Your task to perform on an android device: Search for Italian restaurants on Maps Image 0: 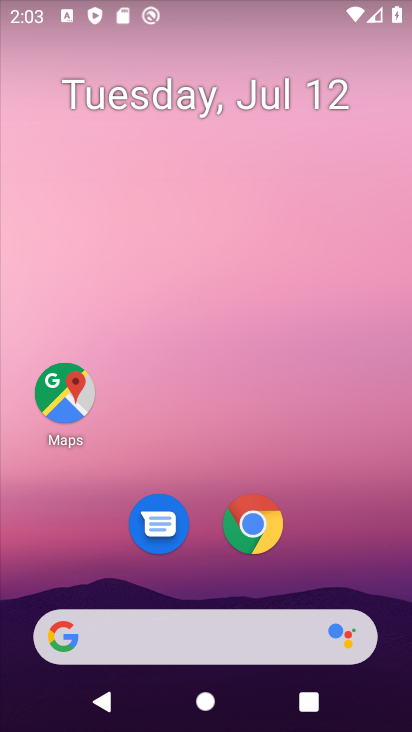
Step 0: click (69, 404)
Your task to perform on an android device: Search for Italian restaurants on Maps Image 1: 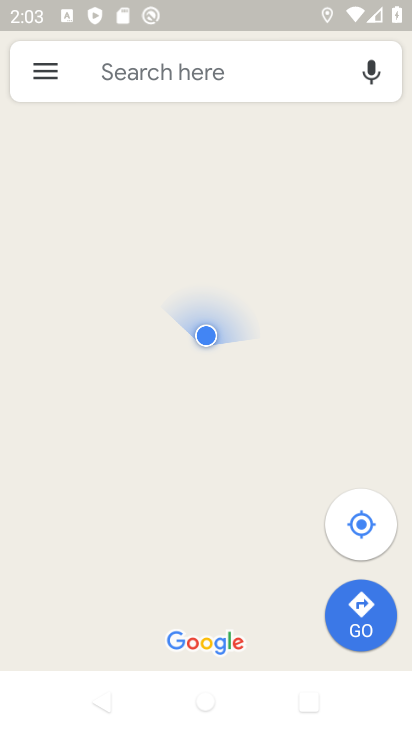
Step 1: click (178, 68)
Your task to perform on an android device: Search for Italian restaurants on Maps Image 2: 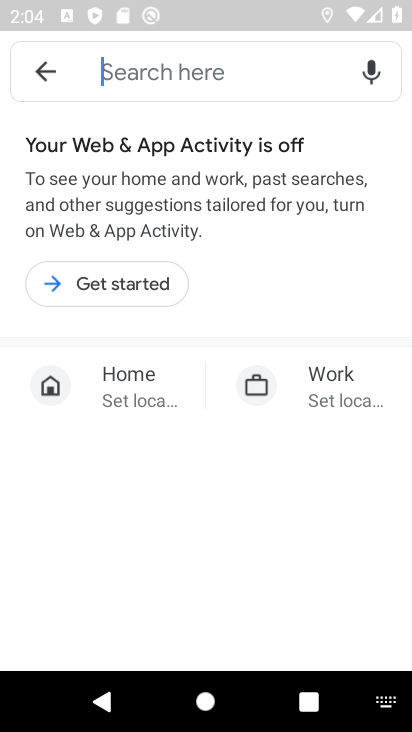
Step 2: type "italian restaurants"
Your task to perform on an android device: Search for Italian restaurants on Maps Image 3: 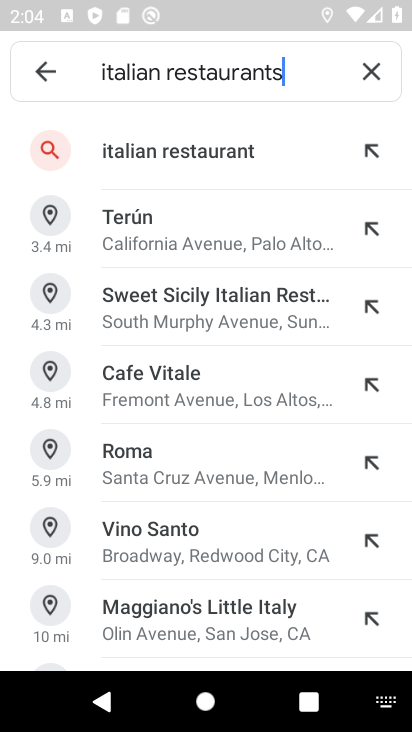
Step 3: click (220, 139)
Your task to perform on an android device: Search for Italian restaurants on Maps Image 4: 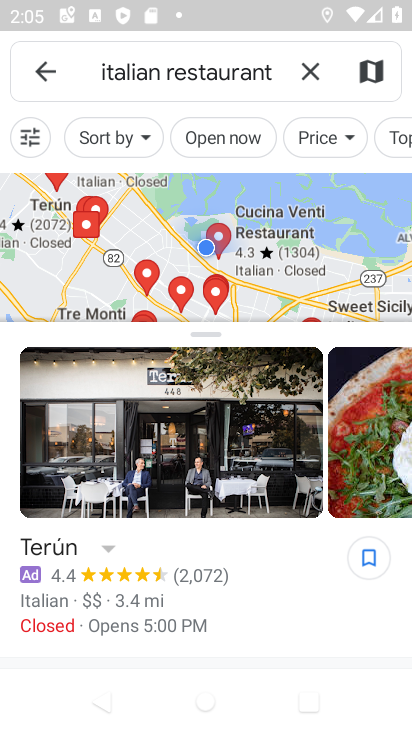
Step 4: task complete